Your task to perform on an android device: turn off wifi Image 0: 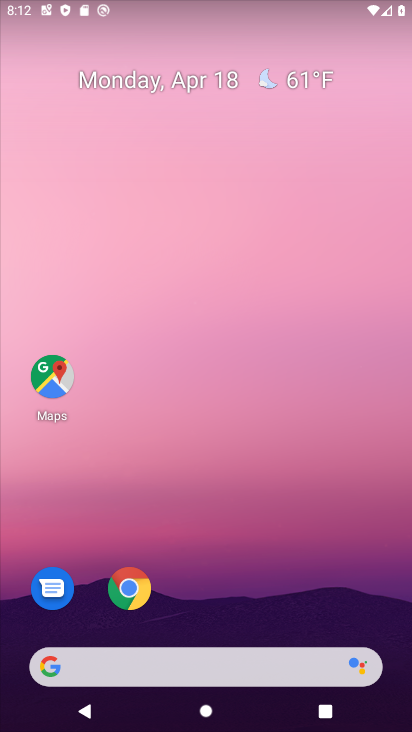
Step 0: drag from (380, 613) to (342, 190)
Your task to perform on an android device: turn off wifi Image 1: 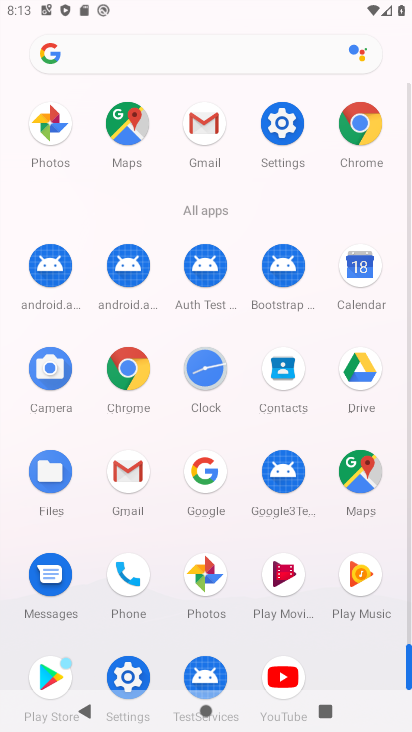
Step 1: click (127, 663)
Your task to perform on an android device: turn off wifi Image 2: 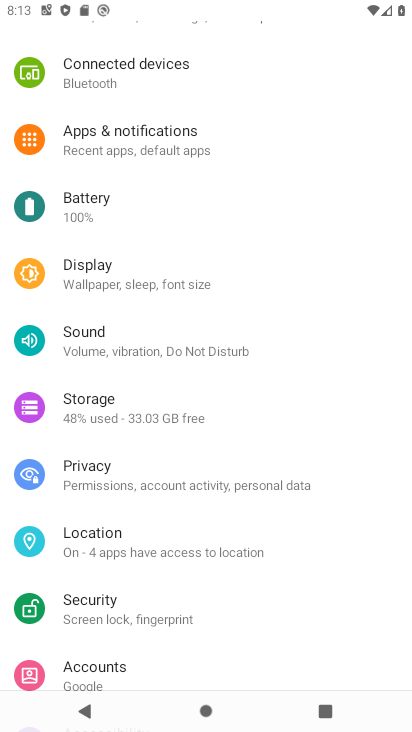
Step 2: drag from (293, 134) to (335, 391)
Your task to perform on an android device: turn off wifi Image 3: 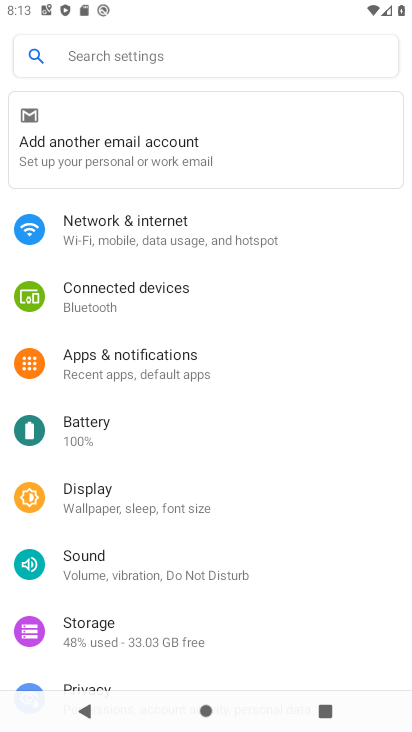
Step 3: click (113, 224)
Your task to perform on an android device: turn off wifi Image 4: 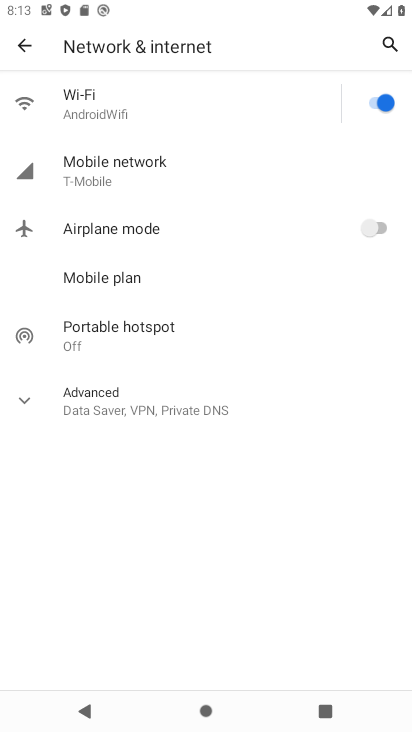
Step 4: click (369, 100)
Your task to perform on an android device: turn off wifi Image 5: 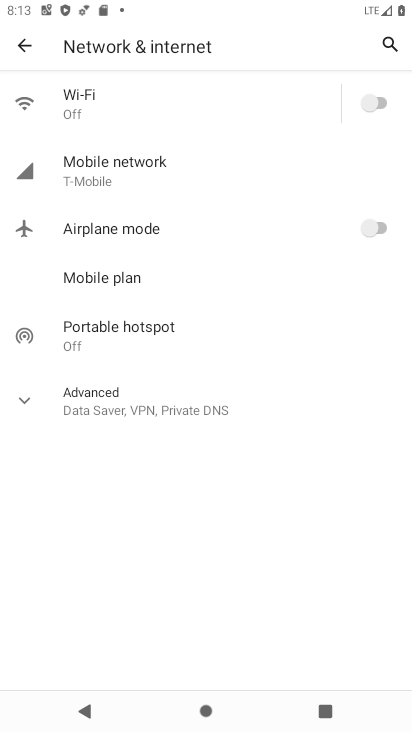
Step 5: task complete